Your task to perform on an android device: change alarm snooze length Image 0: 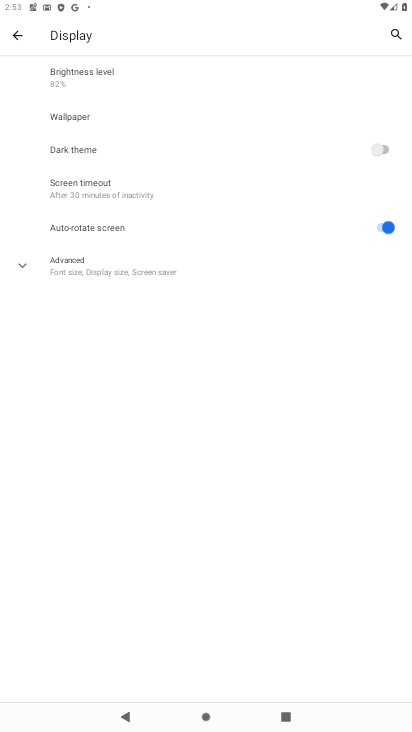
Step 0: task complete